Your task to perform on an android device: Open notification settings Image 0: 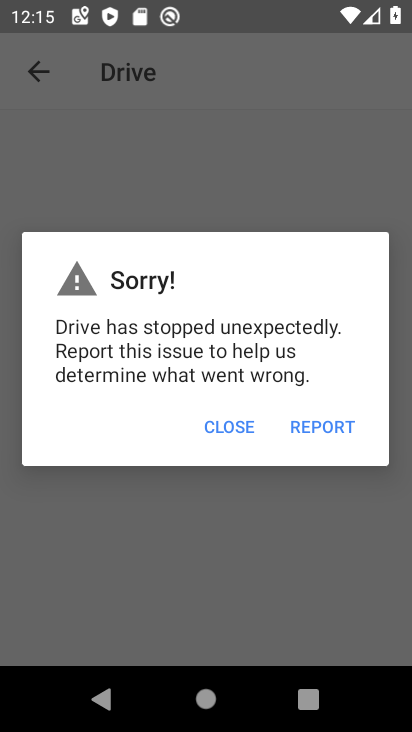
Step 0: press home button
Your task to perform on an android device: Open notification settings Image 1: 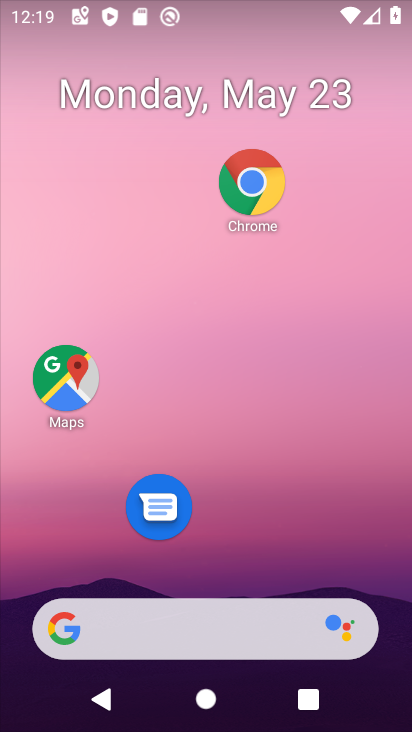
Step 1: drag from (263, 132) to (272, 94)
Your task to perform on an android device: Open notification settings Image 2: 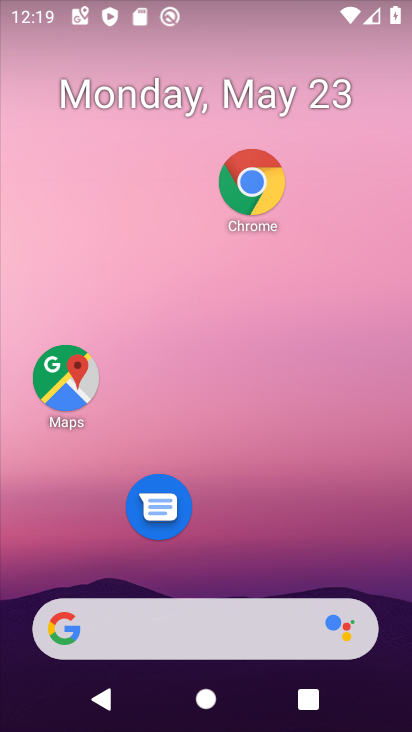
Step 2: drag from (254, 592) to (314, 9)
Your task to perform on an android device: Open notification settings Image 3: 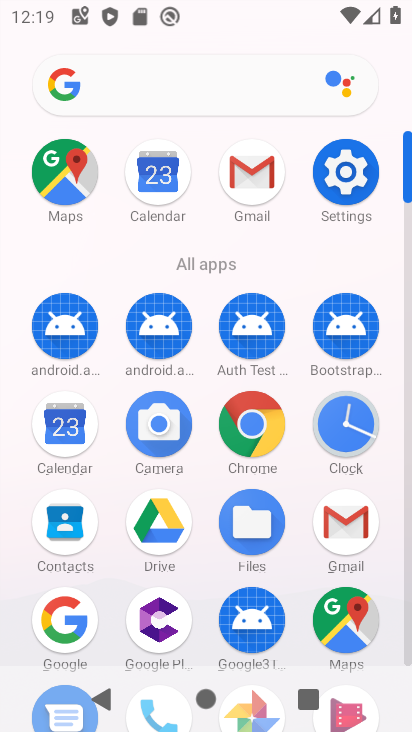
Step 3: click (340, 177)
Your task to perform on an android device: Open notification settings Image 4: 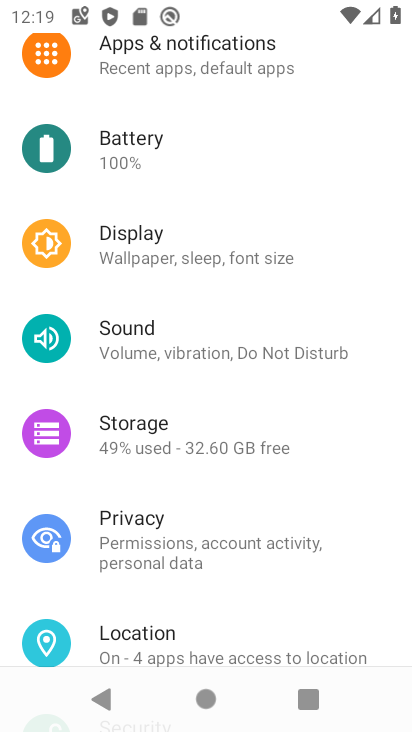
Step 4: click (196, 69)
Your task to perform on an android device: Open notification settings Image 5: 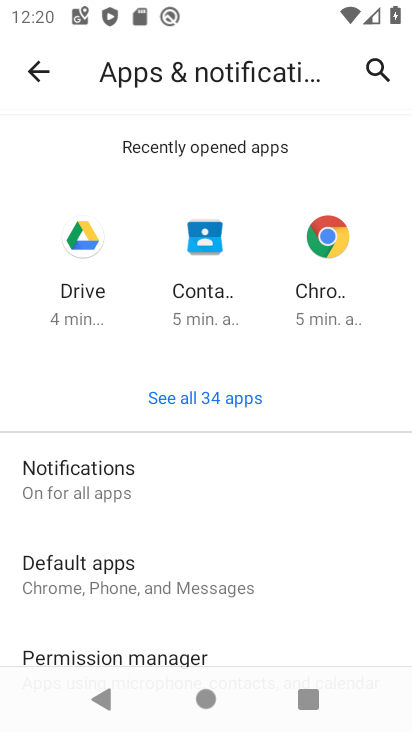
Step 5: task complete